Your task to perform on an android device: move a message to another label in the gmail app Image 0: 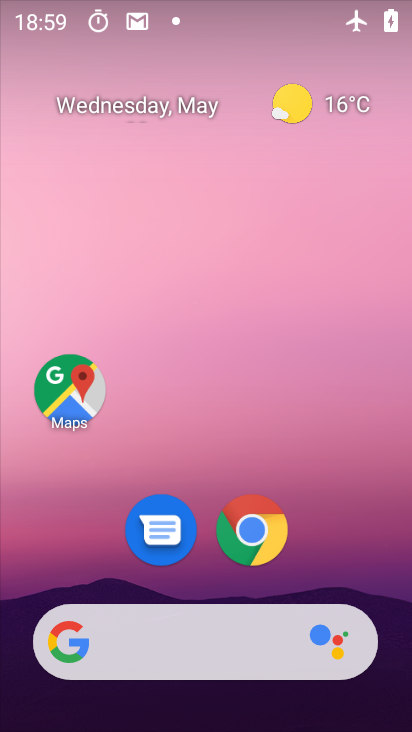
Step 0: drag from (195, 577) to (249, 162)
Your task to perform on an android device: move a message to another label in the gmail app Image 1: 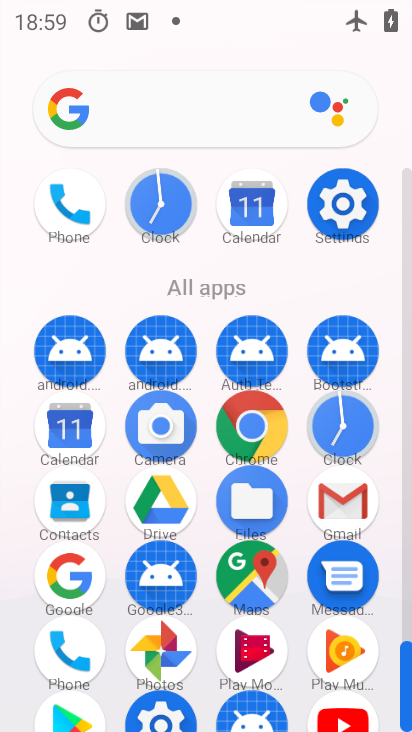
Step 1: click (336, 509)
Your task to perform on an android device: move a message to another label in the gmail app Image 2: 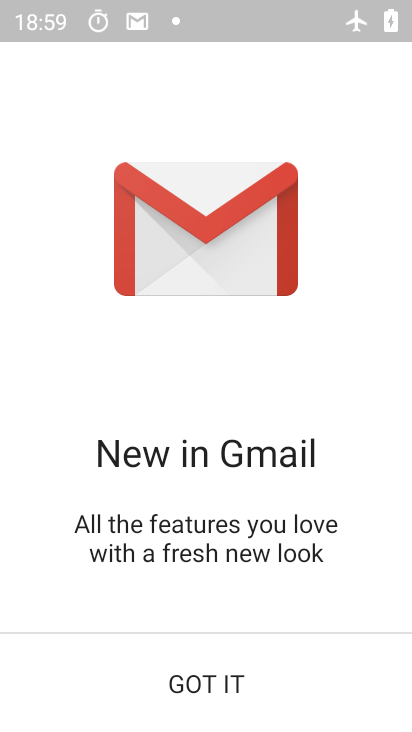
Step 2: click (225, 684)
Your task to perform on an android device: move a message to another label in the gmail app Image 3: 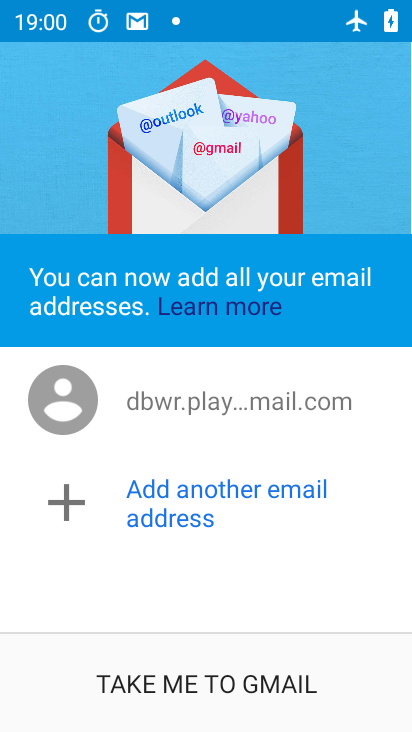
Step 3: click (138, 670)
Your task to perform on an android device: move a message to another label in the gmail app Image 4: 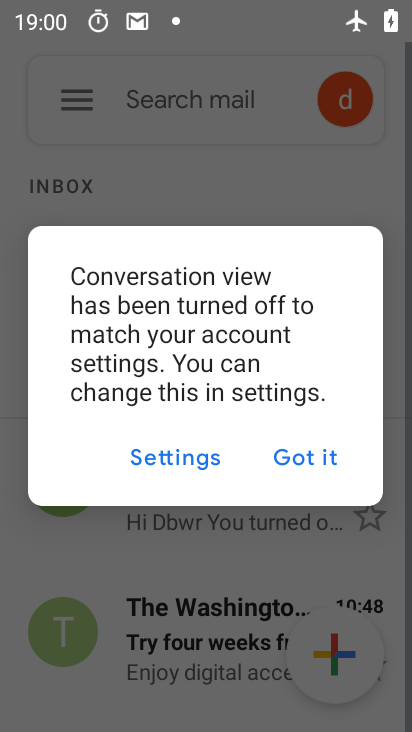
Step 4: click (303, 462)
Your task to perform on an android device: move a message to another label in the gmail app Image 5: 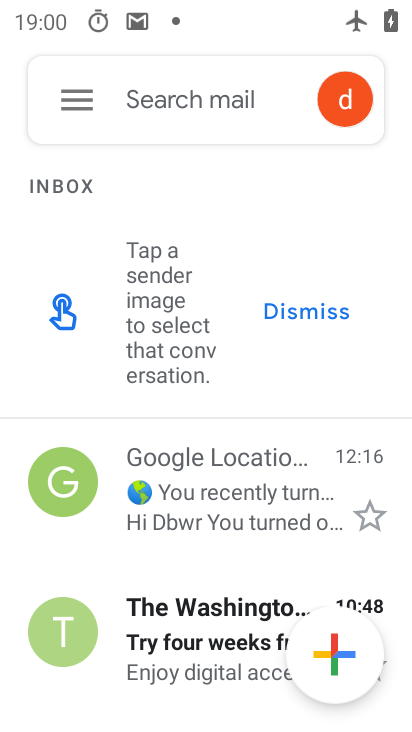
Step 5: click (188, 625)
Your task to perform on an android device: move a message to another label in the gmail app Image 6: 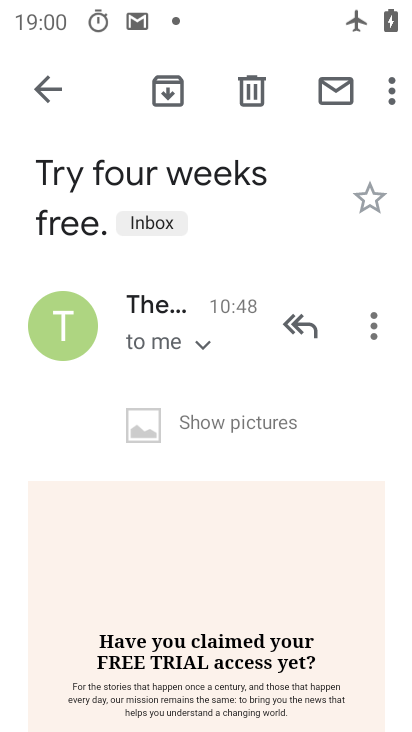
Step 6: click (393, 90)
Your task to perform on an android device: move a message to another label in the gmail app Image 7: 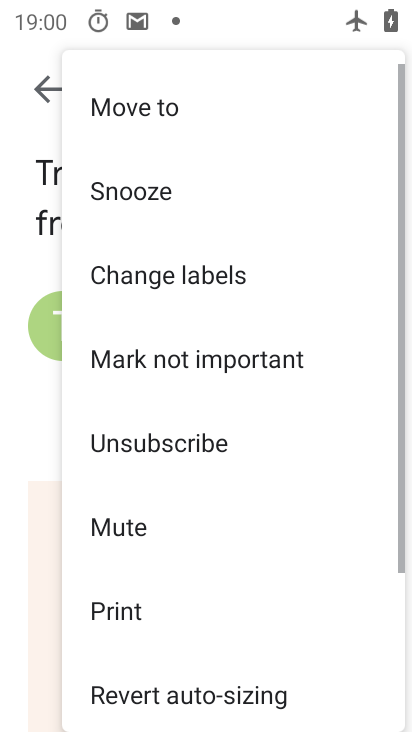
Step 7: click (188, 280)
Your task to perform on an android device: move a message to another label in the gmail app Image 8: 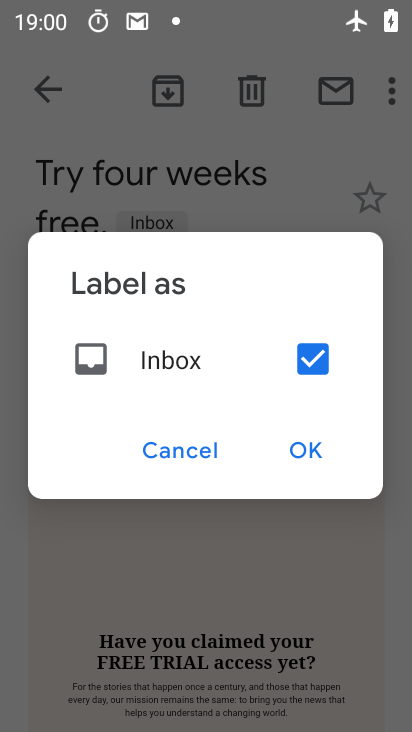
Step 8: click (301, 445)
Your task to perform on an android device: move a message to another label in the gmail app Image 9: 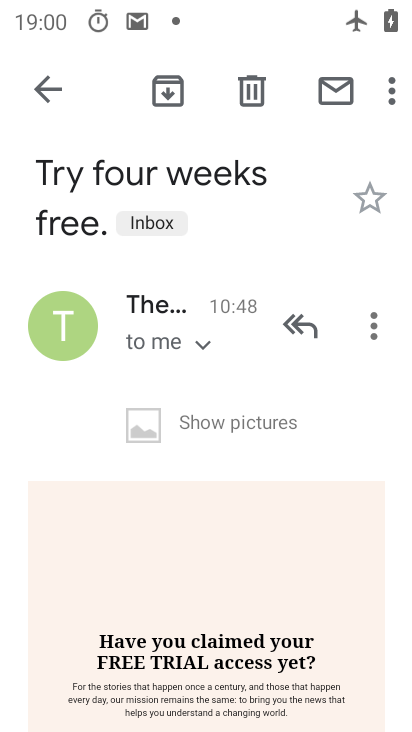
Step 9: task complete